Your task to perform on an android device: turn pop-ups on in chrome Image 0: 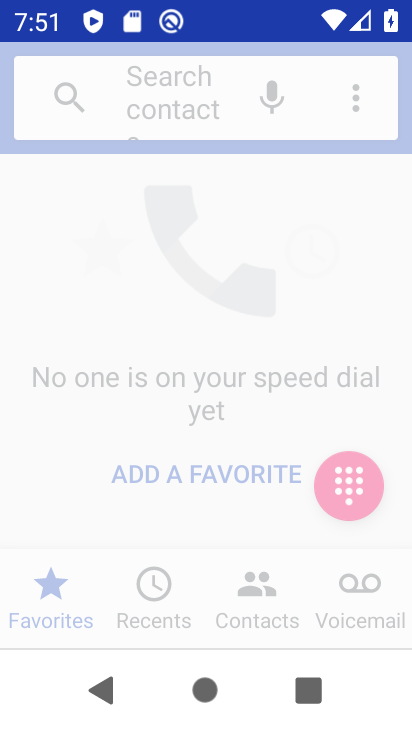
Step 0: drag from (286, 544) to (295, 174)
Your task to perform on an android device: turn pop-ups on in chrome Image 1: 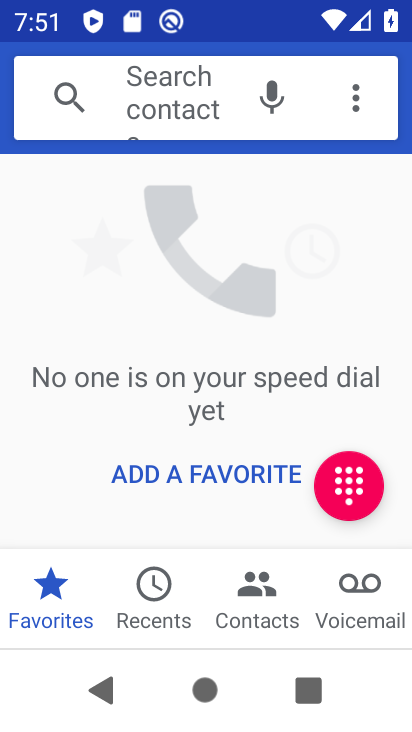
Step 1: press home button
Your task to perform on an android device: turn pop-ups on in chrome Image 2: 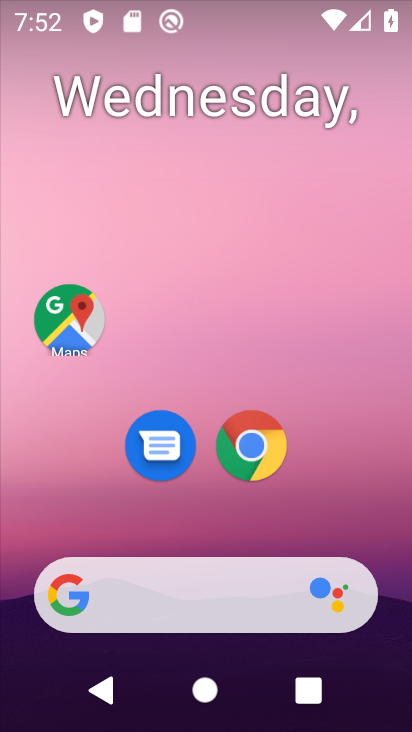
Step 2: drag from (314, 528) to (330, 186)
Your task to perform on an android device: turn pop-ups on in chrome Image 3: 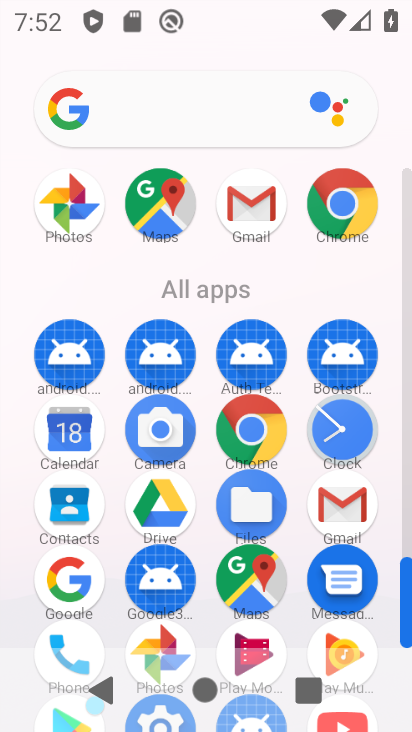
Step 3: click (353, 190)
Your task to perform on an android device: turn pop-ups on in chrome Image 4: 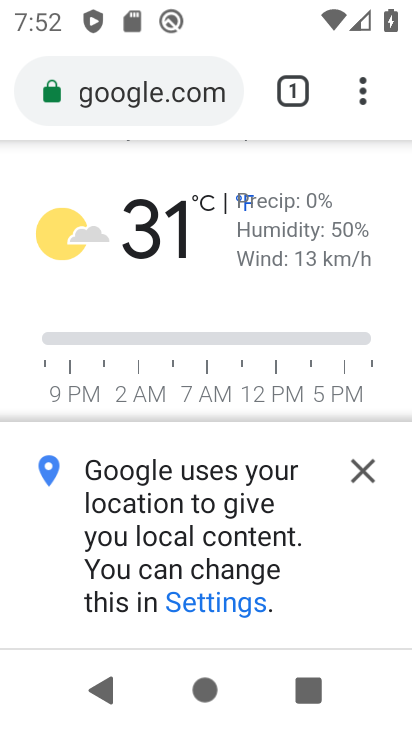
Step 4: click (358, 85)
Your task to perform on an android device: turn pop-ups on in chrome Image 5: 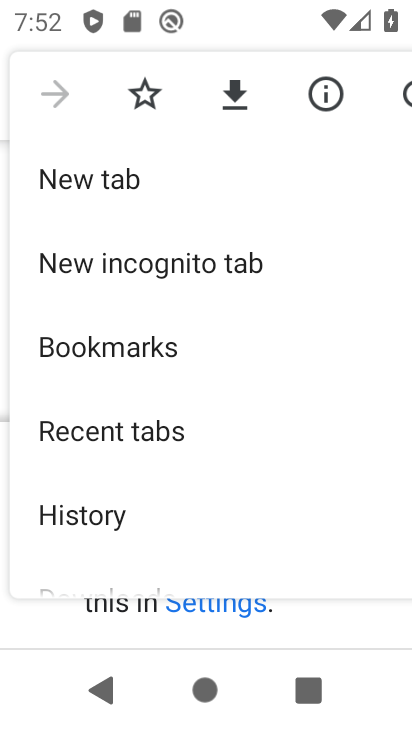
Step 5: drag from (211, 539) to (280, 147)
Your task to perform on an android device: turn pop-ups on in chrome Image 6: 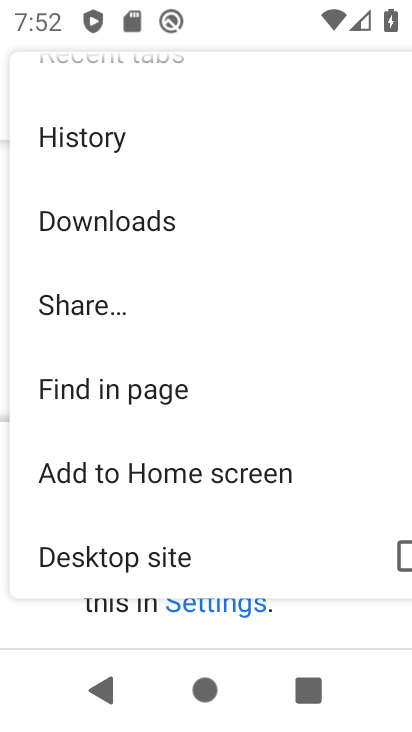
Step 6: drag from (173, 427) to (238, 122)
Your task to perform on an android device: turn pop-ups on in chrome Image 7: 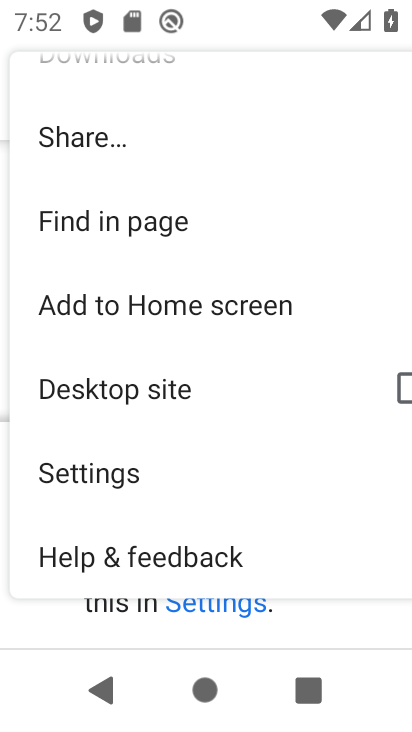
Step 7: click (151, 465)
Your task to perform on an android device: turn pop-ups on in chrome Image 8: 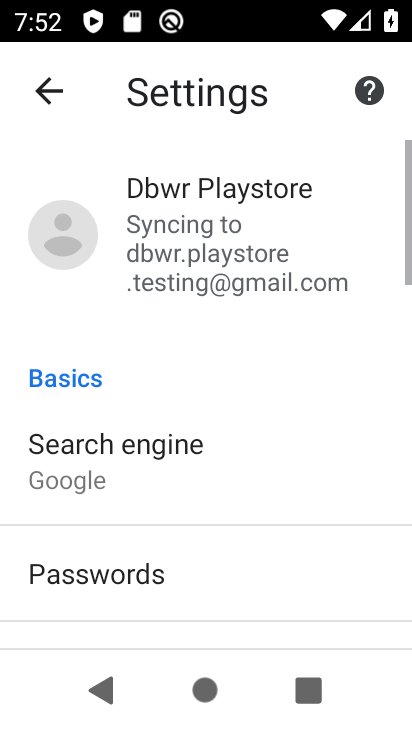
Step 8: drag from (147, 579) to (151, 472)
Your task to perform on an android device: turn pop-ups on in chrome Image 9: 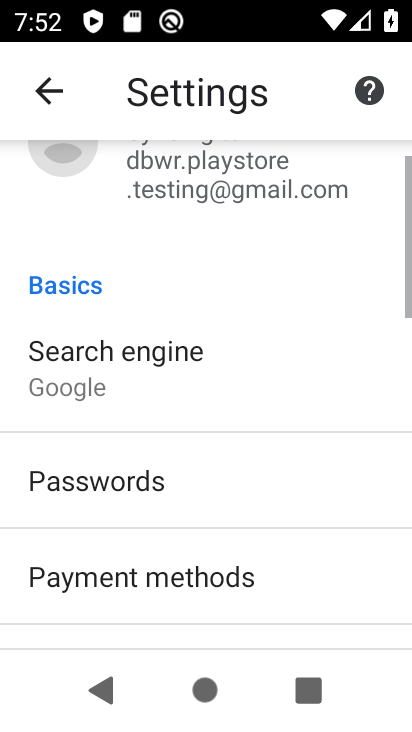
Step 9: drag from (172, 325) to (190, 194)
Your task to perform on an android device: turn pop-ups on in chrome Image 10: 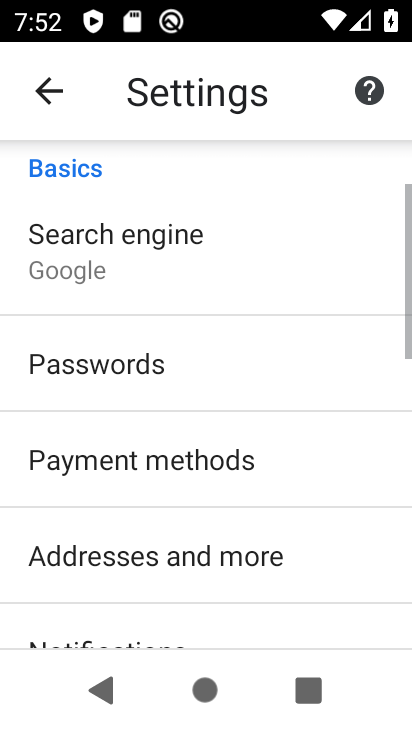
Step 10: drag from (199, 570) to (244, 144)
Your task to perform on an android device: turn pop-ups on in chrome Image 11: 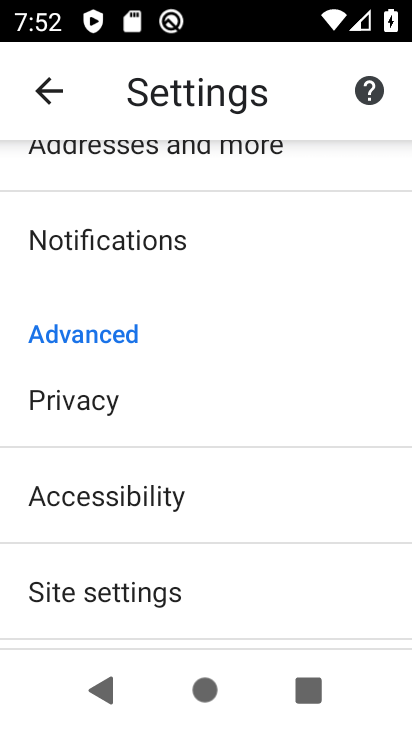
Step 11: click (220, 591)
Your task to perform on an android device: turn pop-ups on in chrome Image 12: 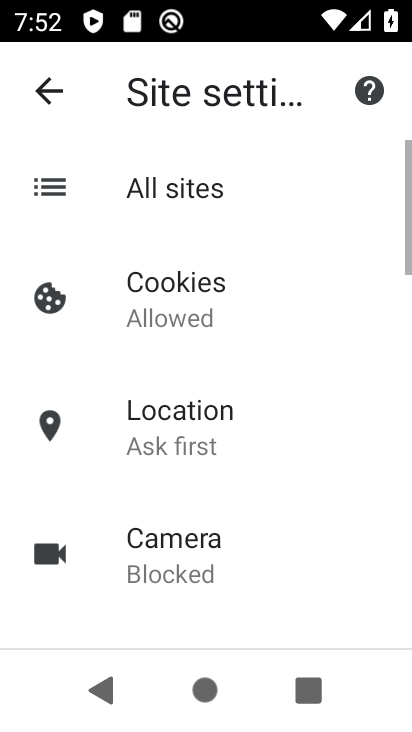
Step 12: drag from (145, 572) to (158, 223)
Your task to perform on an android device: turn pop-ups on in chrome Image 13: 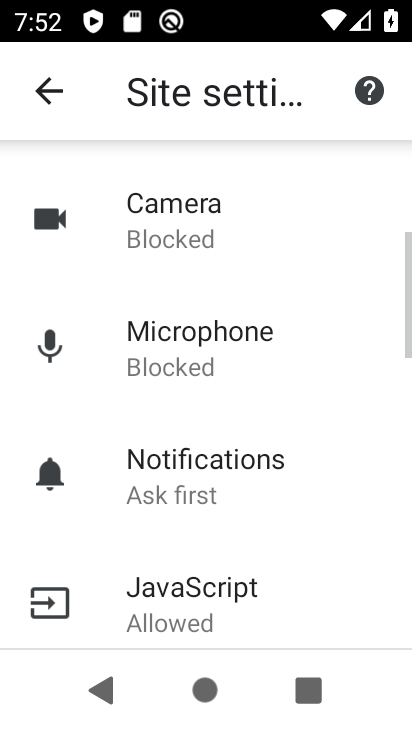
Step 13: drag from (163, 563) to (168, 252)
Your task to perform on an android device: turn pop-ups on in chrome Image 14: 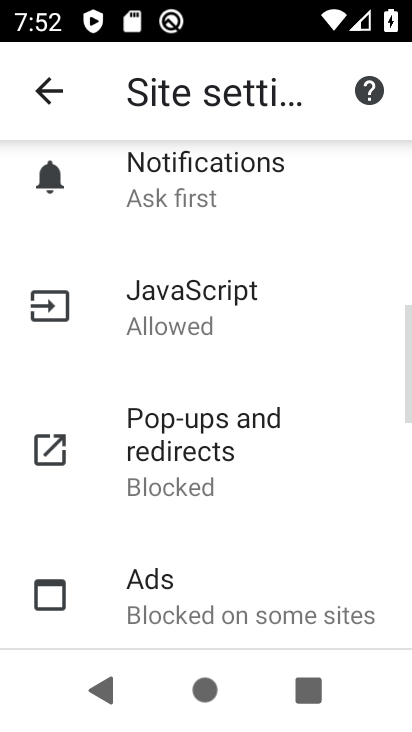
Step 14: click (145, 405)
Your task to perform on an android device: turn pop-ups on in chrome Image 15: 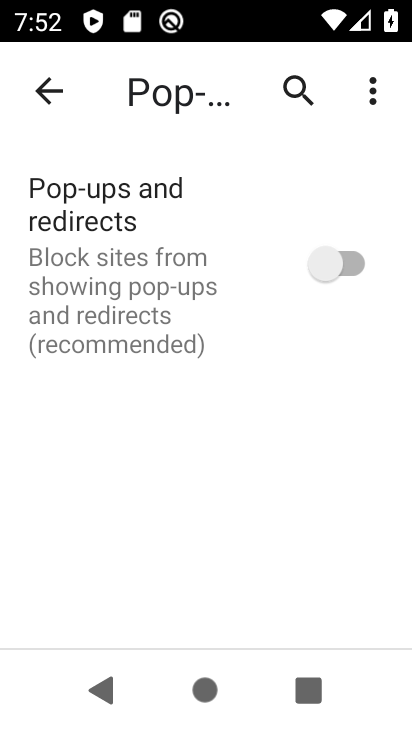
Step 15: click (335, 264)
Your task to perform on an android device: turn pop-ups on in chrome Image 16: 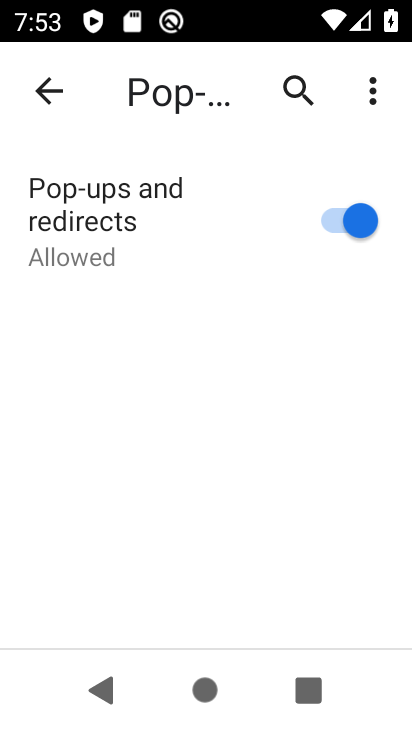
Step 16: task complete